Your task to perform on an android device: install app "Google Play services" Image 0: 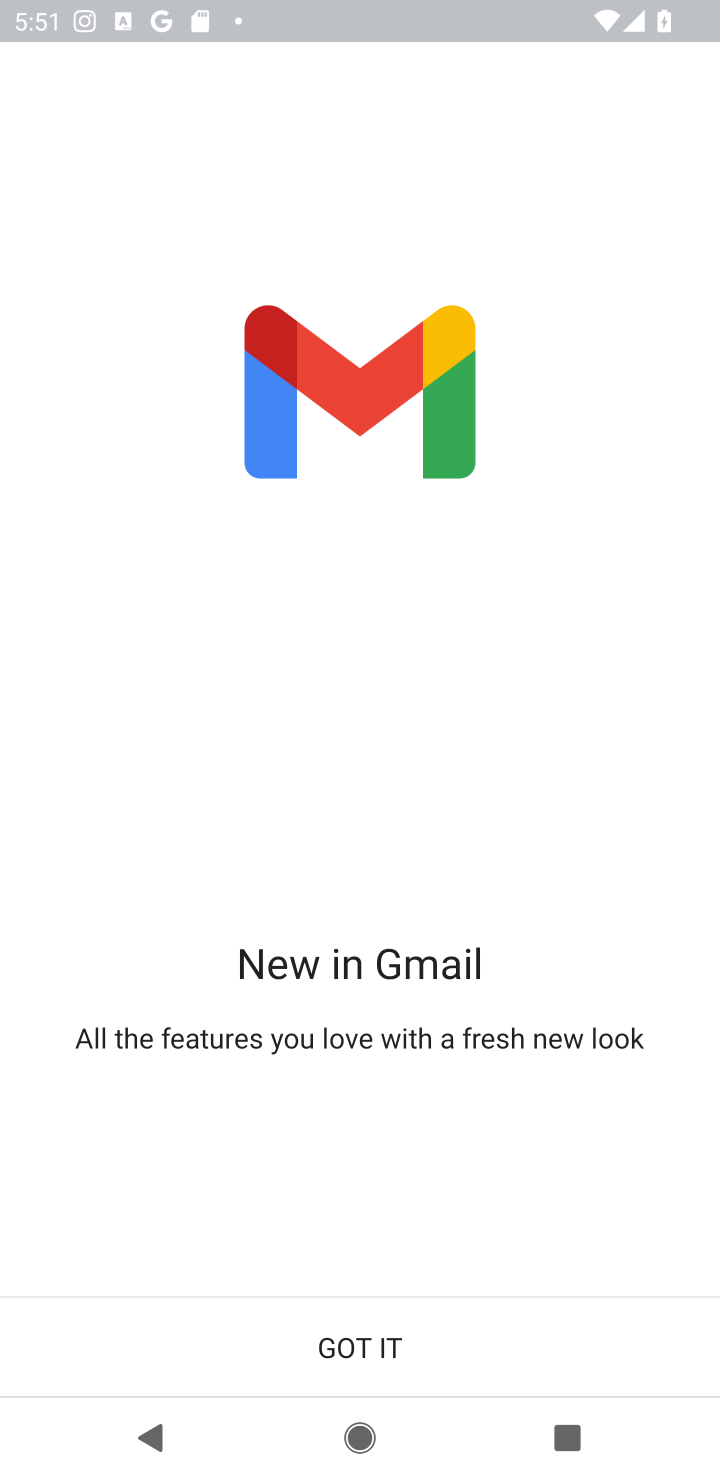
Step 0: press home button
Your task to perform on an android device: install app "Google Play services" Image 1: 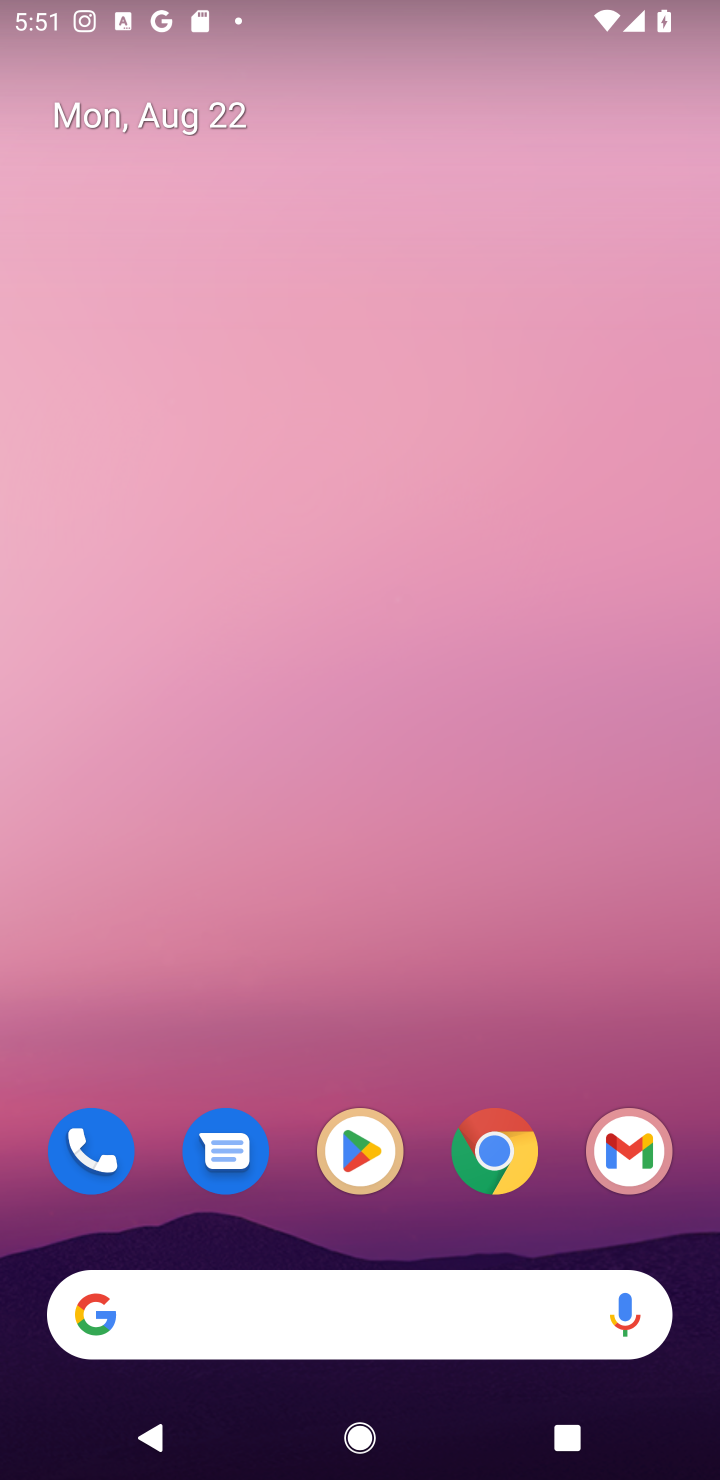
Step 1: click (369, 1144)
Your task to perform on an android device: install app "Google Play services" Image 2: 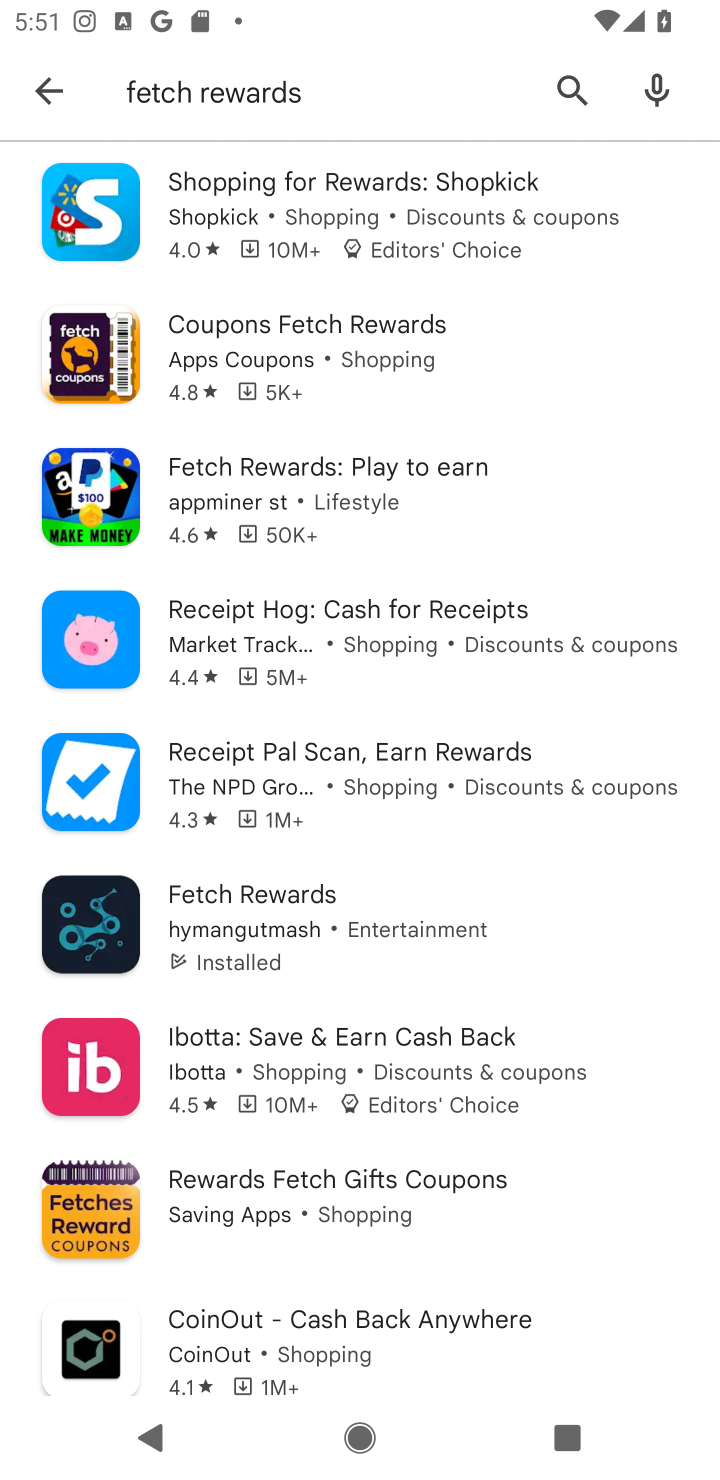
Step 2: click (566, 84)
Your task to perform on an android device: install app "Google Play services" Image 3: 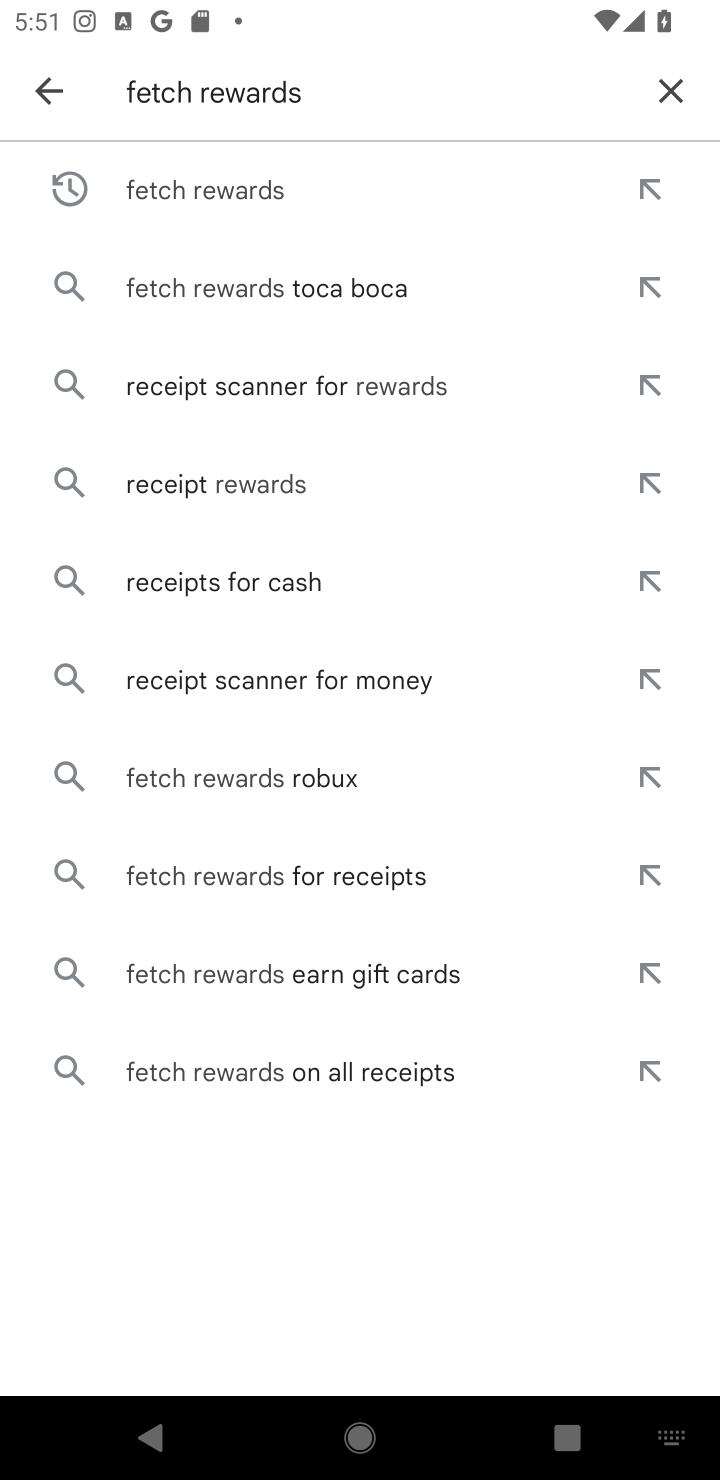
Step 3: click (659, 87)
Your task to perform on an android device: install app "Google Play services" Image 4: 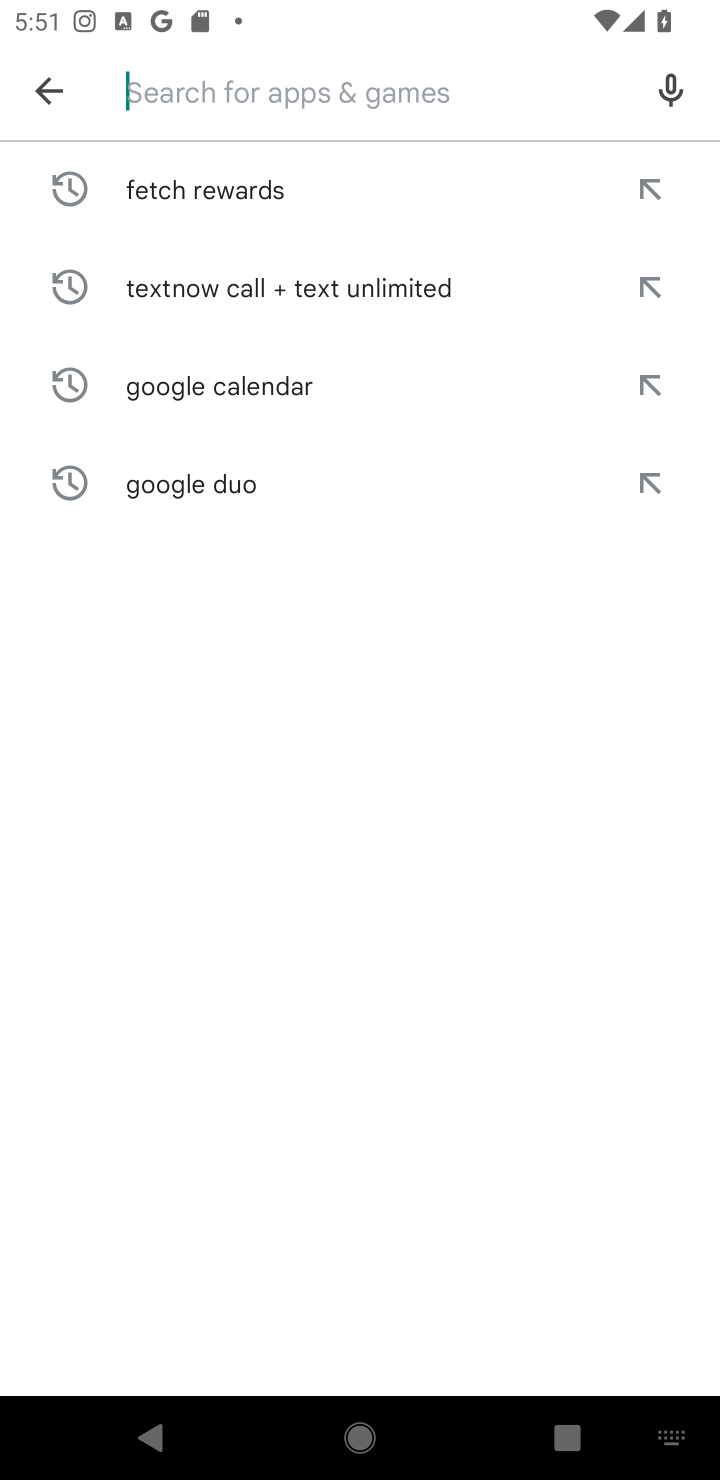
Step 4: type "Google Play services"
Your task to perform on an android device: install app "Google Play services" Image 5: 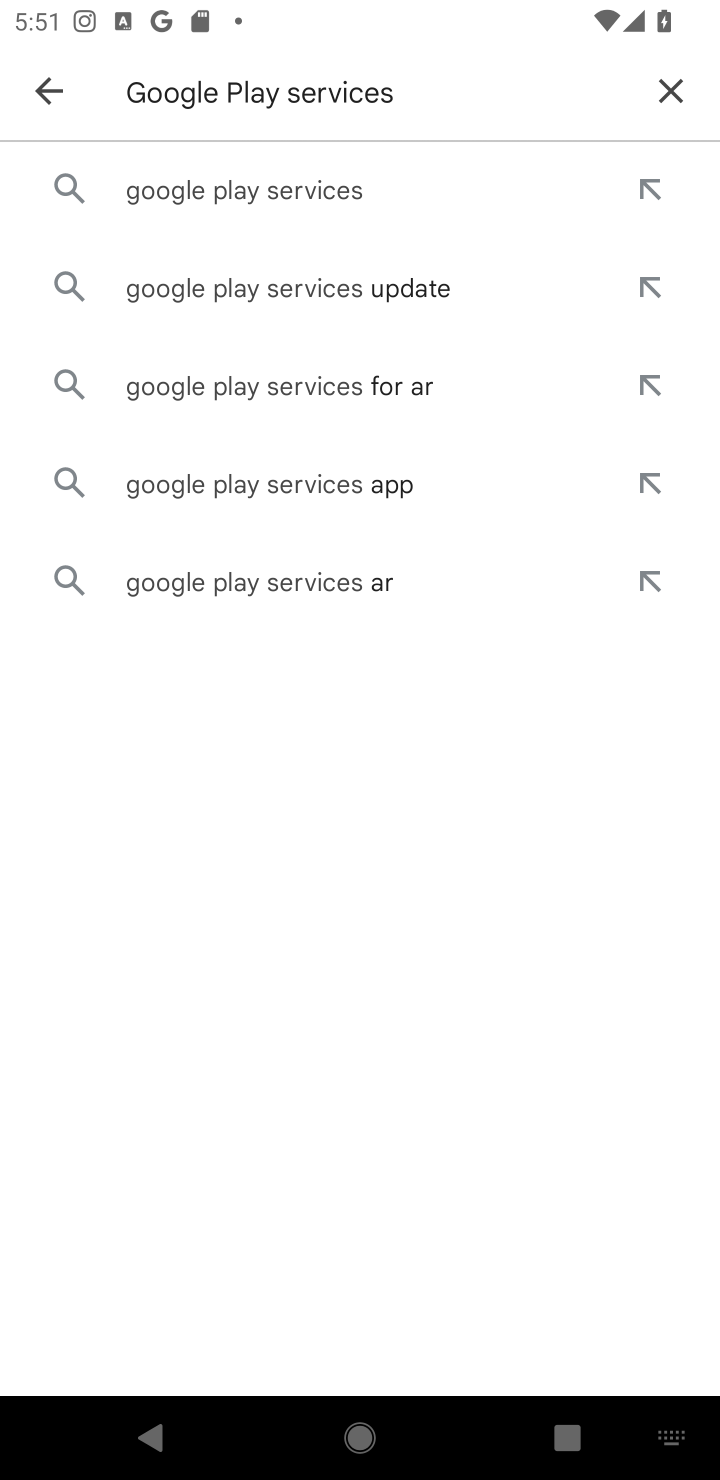
Step 5: click (194, 192)
Your task to perform on an android device: install app "Google Play services" Image 6: 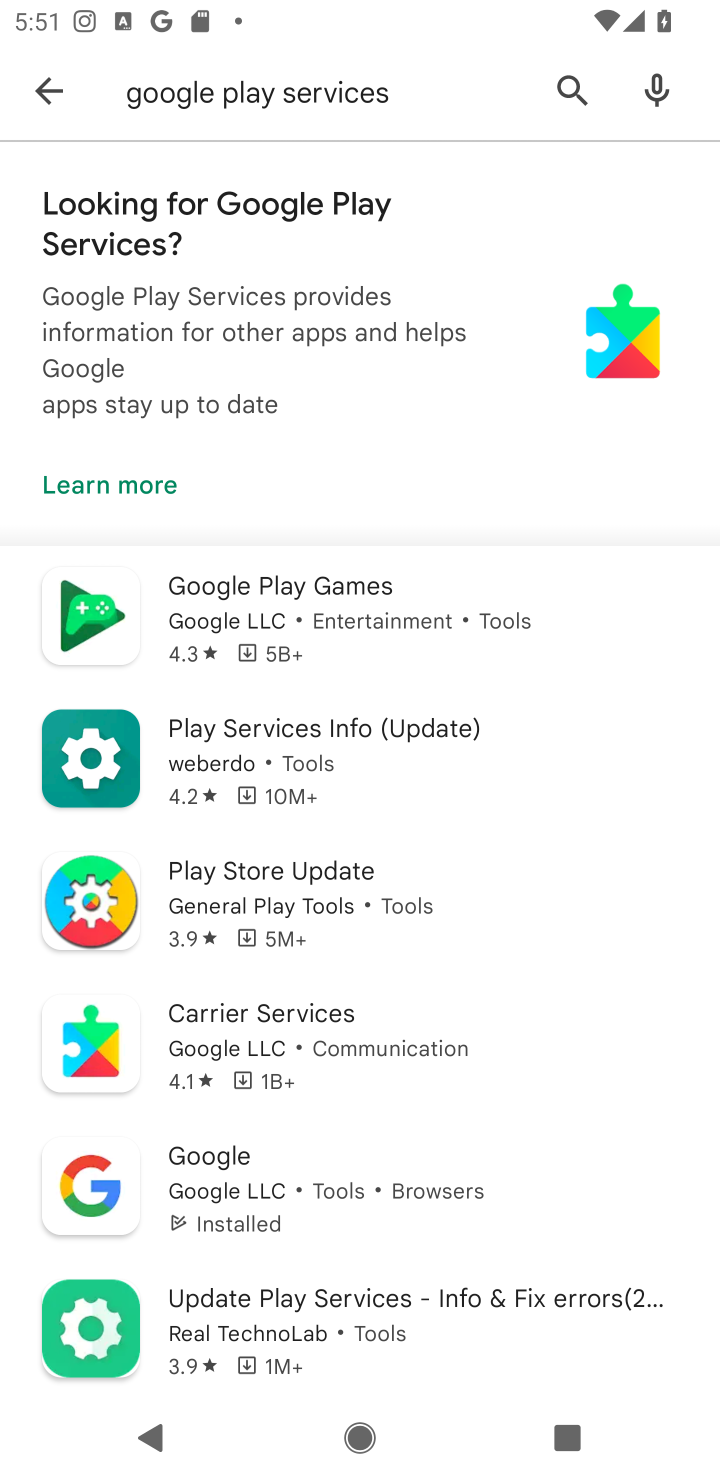
Step 6: task complete